Your task to perform on an android device: Open maps Image 0: 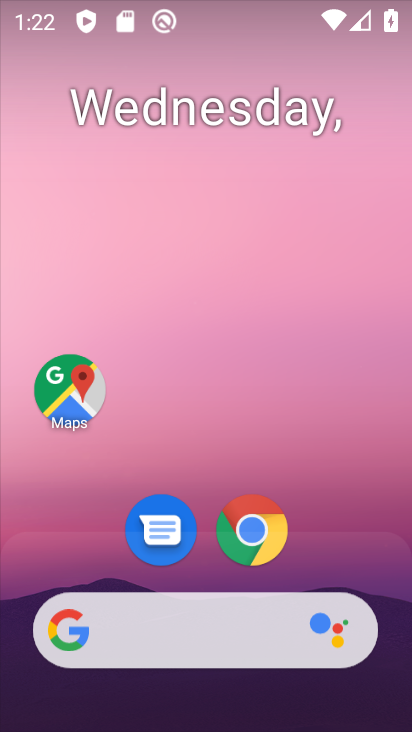
Step 0: drag from (31, 551) to (268, 126)
Your task to perform on an android device: Open maps Image 1: 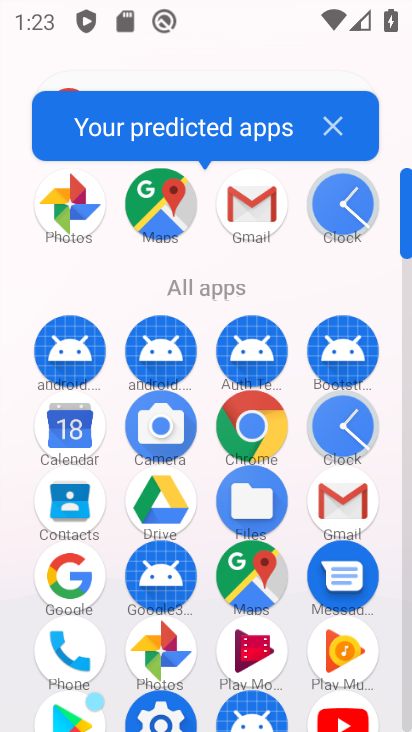
Step 1: click (326, 123)
Your task to perform on an android device: Open maps Image 2: 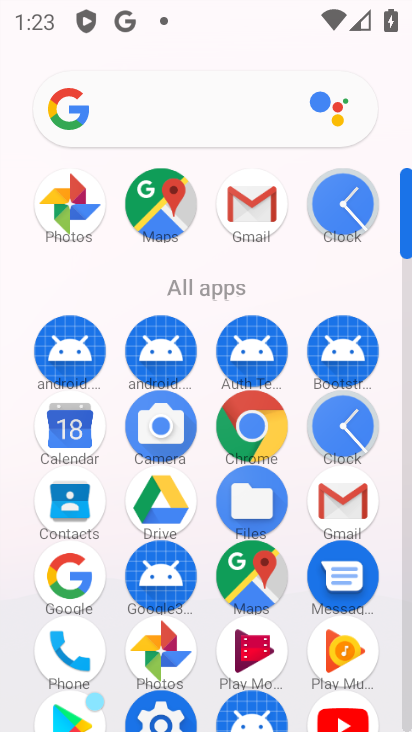
Step 2: click (269, 562)
Your task to perform on an android device: Open maps Image 3: 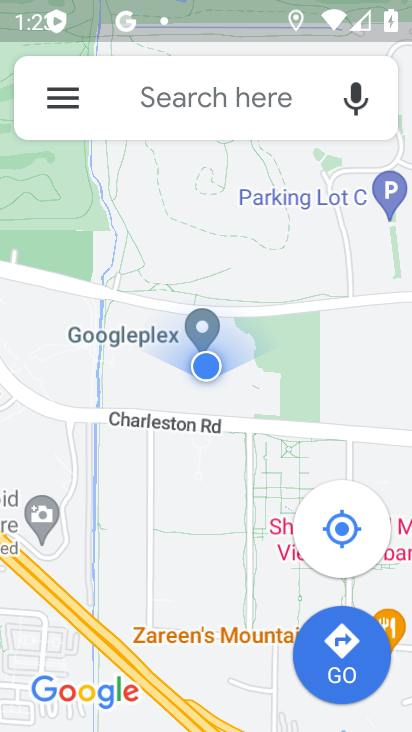
Step 3: task complete